Your task to perform on an android device: Search for seafood restaurants on Google Maps Image 0: 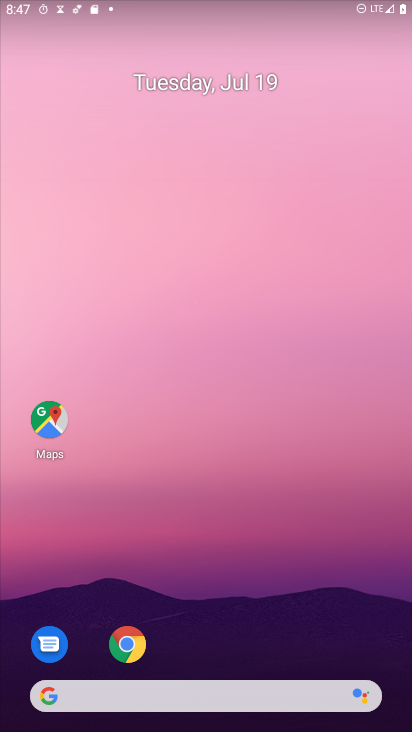
Step 0: click (43, 402)
Your task to perform on an android device: Search for seafood restaurants on Google Maps Image 1: 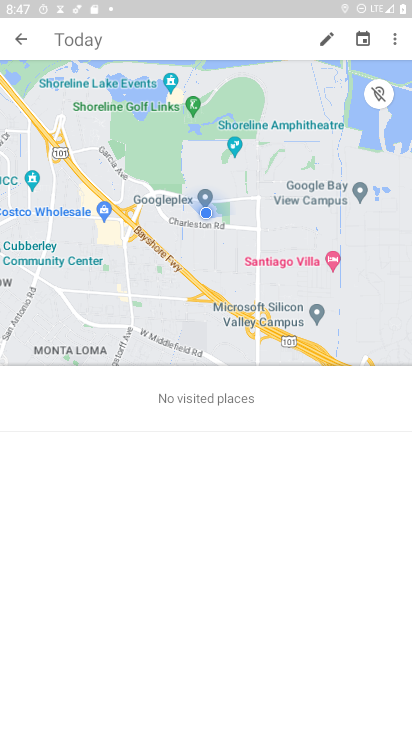
Step 1: click (15, 35)
Your task to perform on an android device: Search for seafood restaurants on Google Maps Image 2: 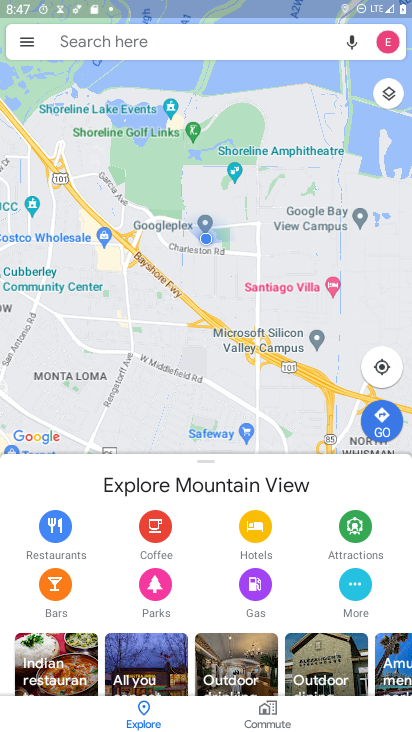
Step 2: click (114, 35)
Your task to perform on an android device: Search for seafood restaurants on Google Maps Image 3: 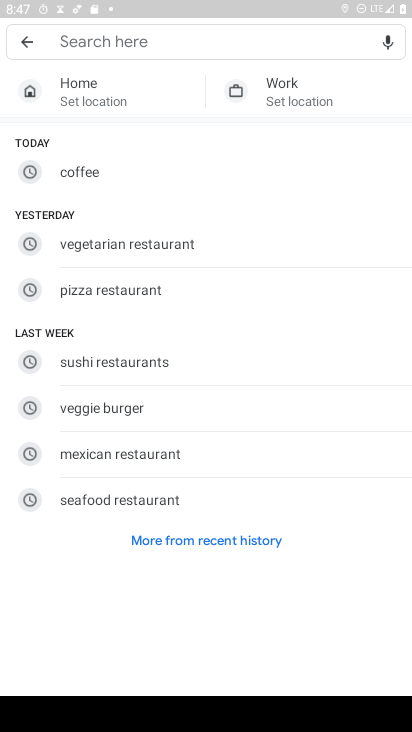
Step 3: click (119, 498)
Your task to perform on an android device: Search for seafood restaurants on Google Maps Image 4: 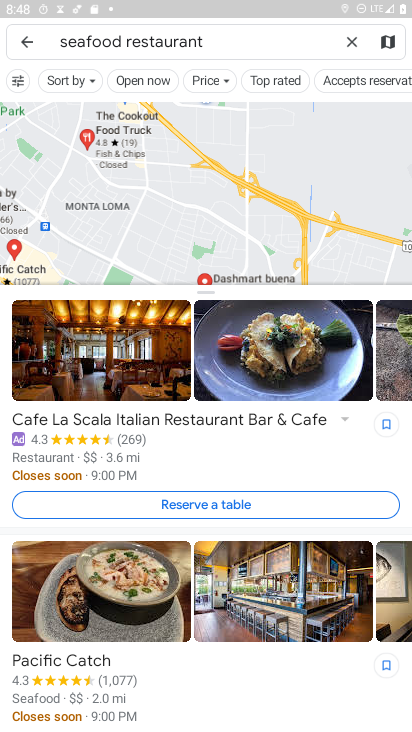
Step 4: task complete